Your task to perform on an android device: make emails show in primary in the gmail app Image 0: 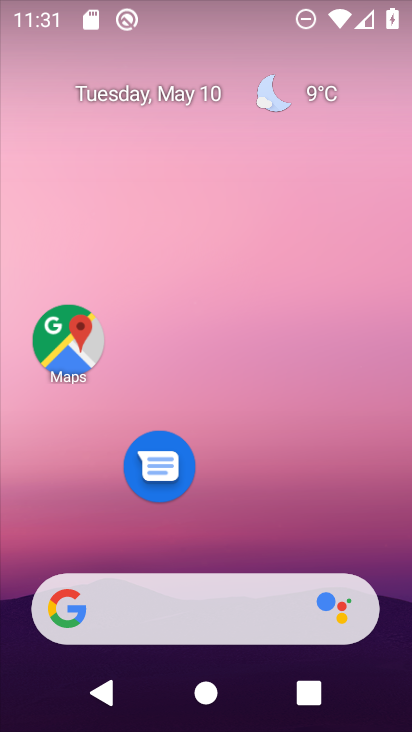
Step 0: drag from (255, 514) to (258, 110)
Your task to perform on an android device: make emails show in primary in the gmail app Image 1: 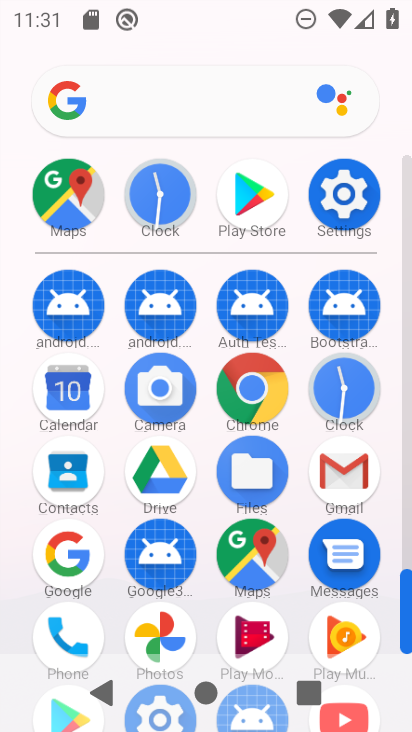
Step 1: click (338, 485)
Your task to perform on an android device: make emails show in primary in the gmail app Image 2: 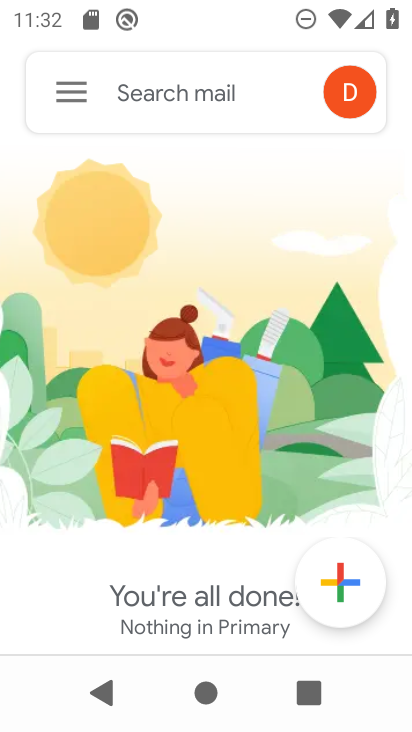
Step 2: click (86, 87)
Your task to perform on an android device: make emails show in primary in the gmail app Image 3: 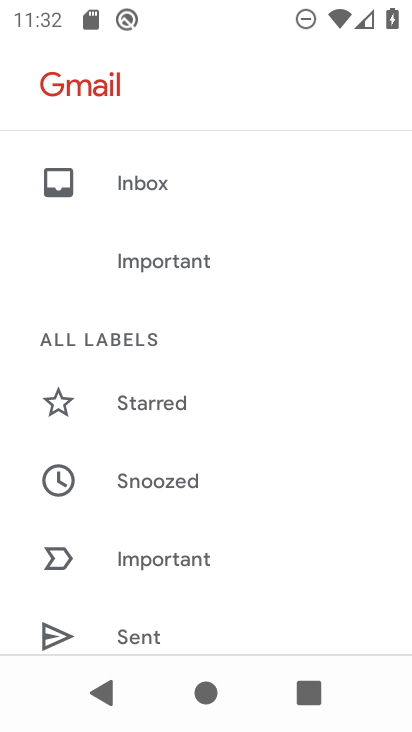
Step 3: drag from (233, 505) to (239, 282)
Your task to perform on an android device: make emails show in primary in the gmail app Image 4: 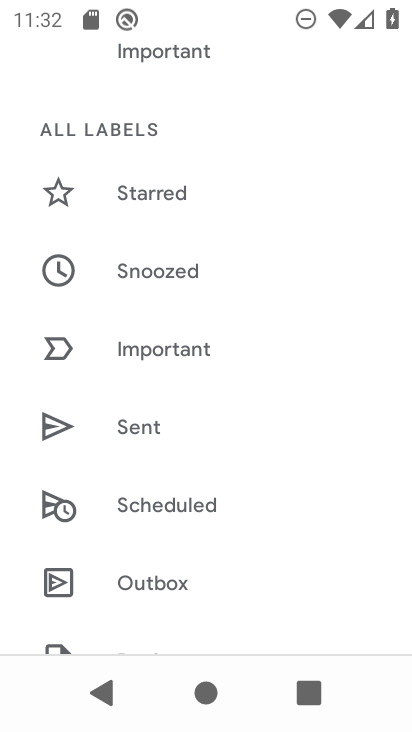
Step 4: drag from (197, 474) to (197, 289)
Your task to perform on an android device: make emails show in primary in the gmail app Image 5: 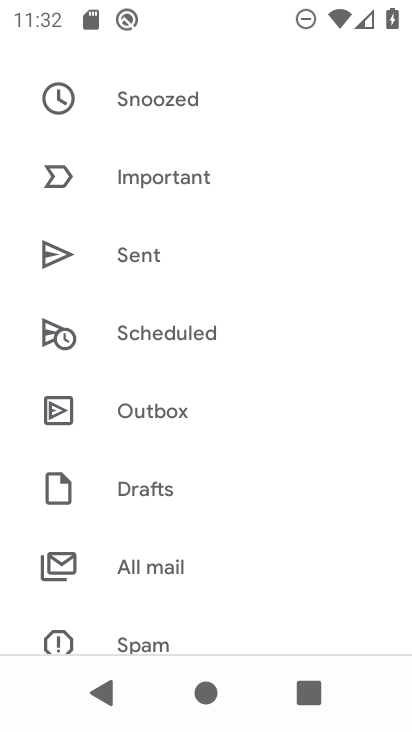
Step 5: drag from (214, 492) to (207, 336)
Your task to perform on an android device: make emails show in primary in the gmail app Image 6: 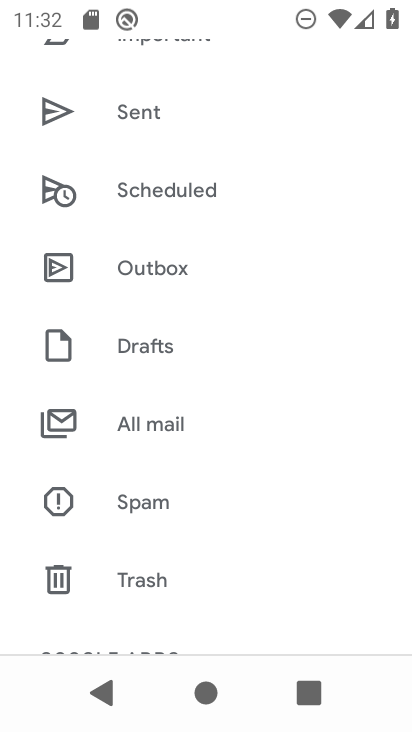
Step 6: drag from (201, 487) to (201, 314)
Your task to perform on an android device: make emails show in primary in the gmail app Image 7: 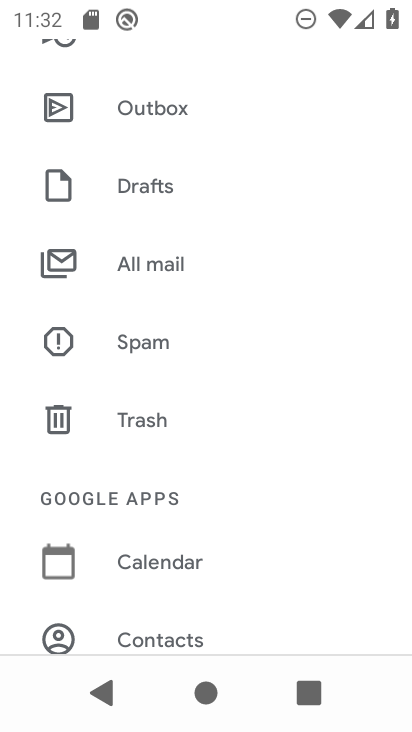
Step 7: drag from (183, 552) to (188, 374)
Your task to perform on an android device: make emails show in primary in the gmail app Image 8: 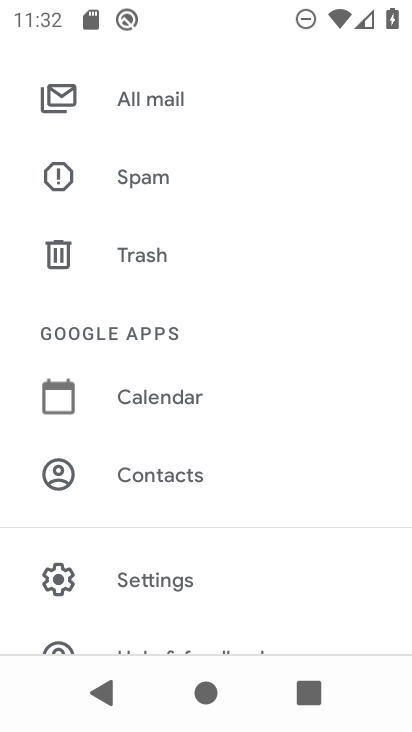
Step 8: click (180, 579)
Your task to perform on an android device: make emails show in primary in the gmail app Image 9: 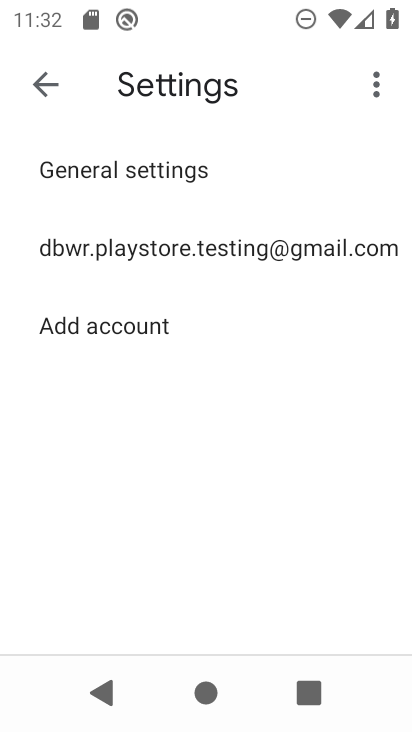
Step 9: click (149, 261)
Your task to perform on an android device: make emails show in primary in the gmail app Image 10: 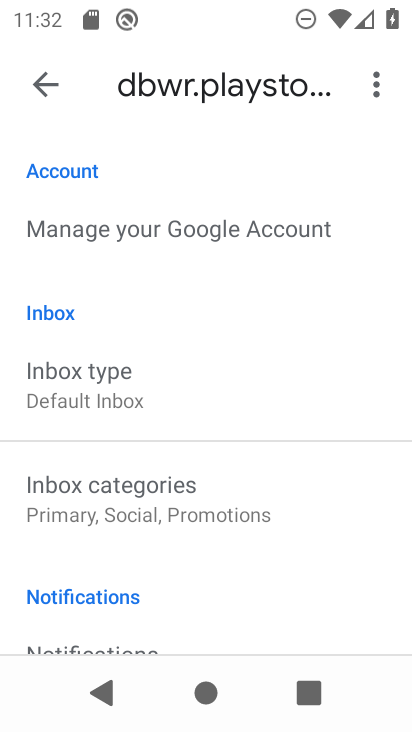
Step 10: click (105, 384)
Your task to perform on an android device: make emails show in primary in the gmail app Image 11: 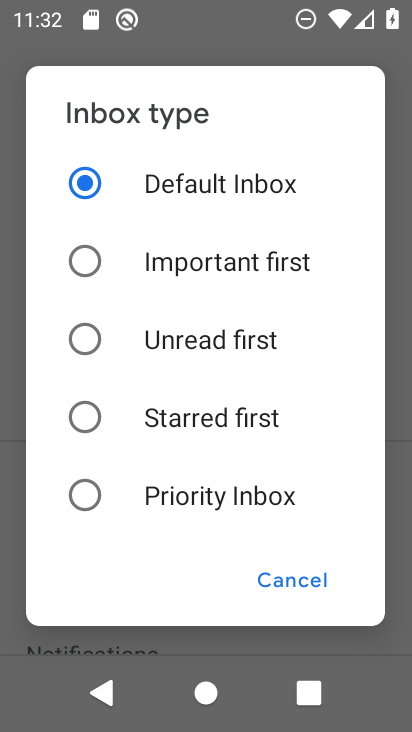
Step 11: click (208, 195)
Your task to perform on an android device: make emails show in primary in the gmail app Image 12: 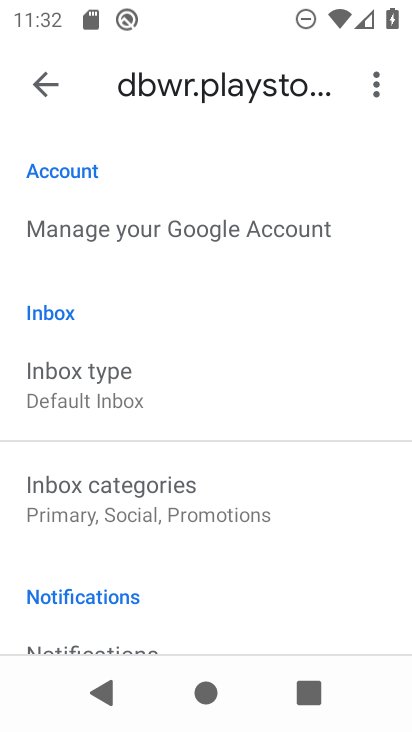
Step 12: task complete